Your task to perform on an android device: change the clock style Image 0: 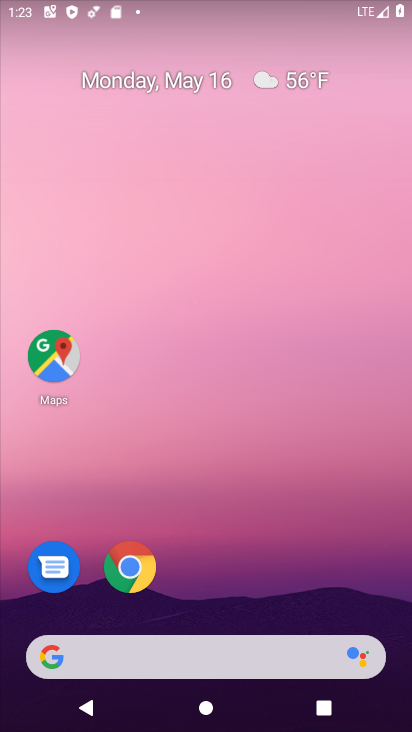
Step 0: drag from (235, 625) to (311, 74)
Your task to perform on an android device: change the clock style Image 1: 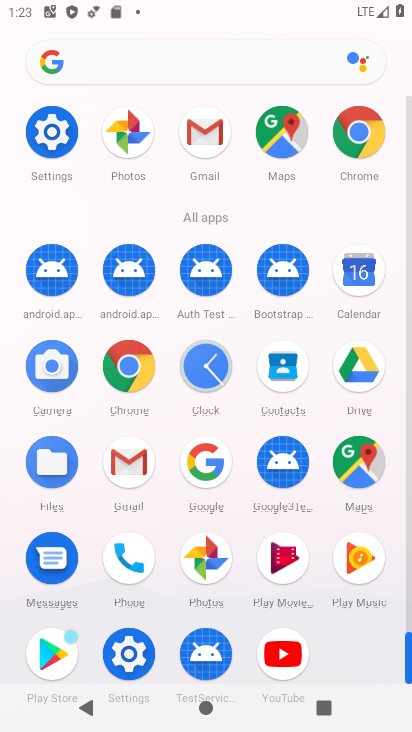
Step 1: click (207, 363)
Your task to perform on an android device: change the clock style Image 2: 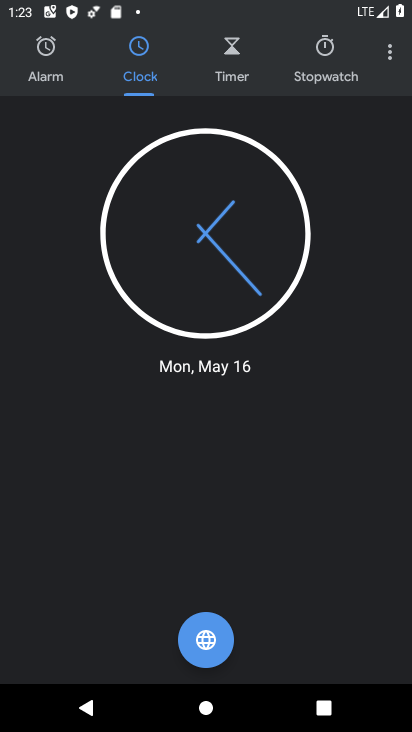
Step 2: click (390, 54)
Your task to perform on an android device: change the clock style Image 3: 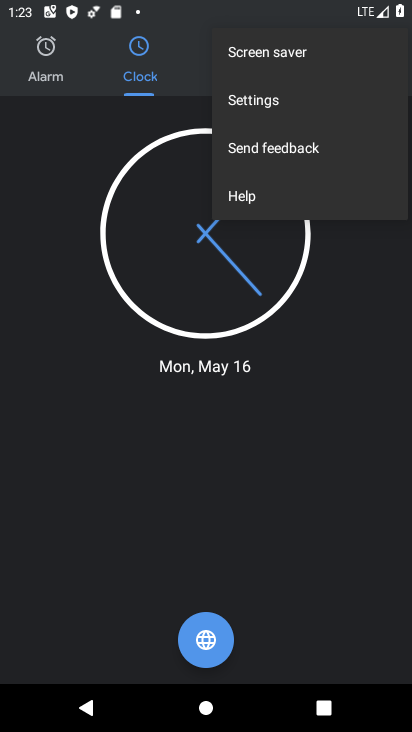
Step 3: click (339, 102)
Your task to perform on an android device: change the clock style Image 4: 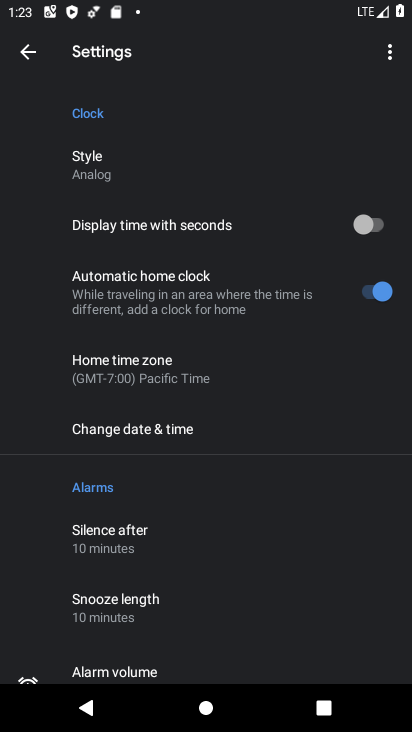
Step 4: click (180, 170)
Your task to perform on an android device: change the clock style Image 5: 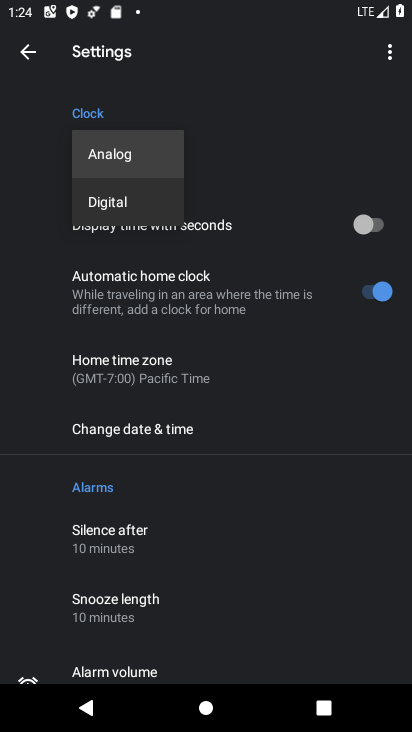
Step 5: click (138, 204)
Your task to perform on an android device: change the clock style Image 6: 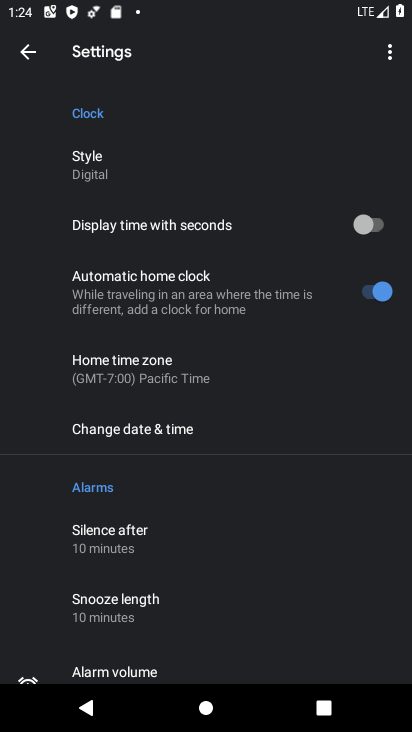
Step 6: task complete